Your task to perform on an android device: turn on the 12-hour format for clock Image 0: 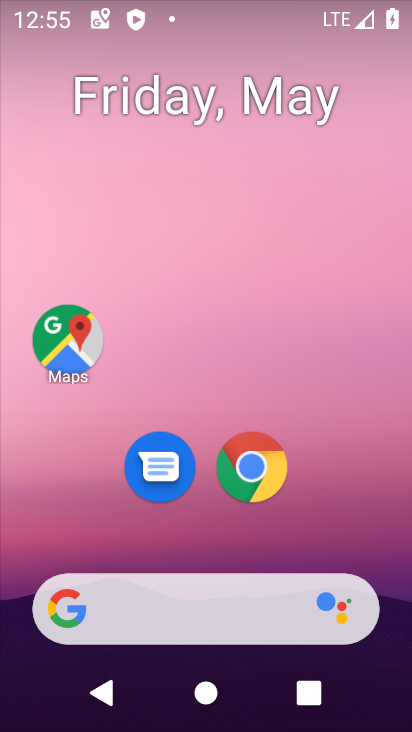
Step 0: drag from (338, 493) to (307, 65)
Your task to perform on an android device: turn on the 12-hour format for clock Image 1: 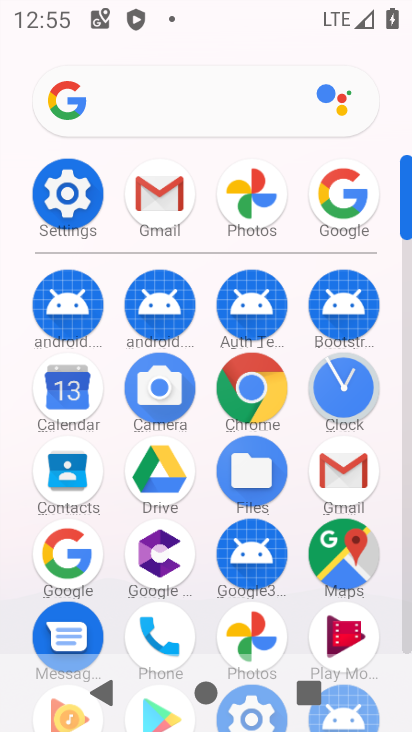
Step 1: drag from (209, 532) to (214, 242)
Your task to perform on an android device: turn on the 12-hour format for clock Image 2: 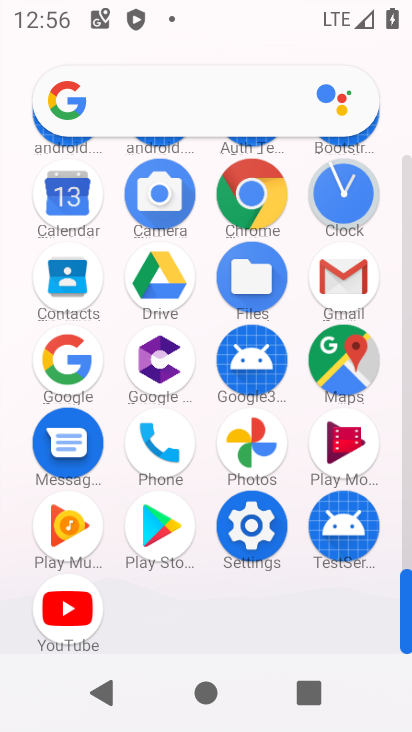
Step 2: click (348, 191)
Your task to perform on an android device: turn on the 12-hour format for clock Image 3: 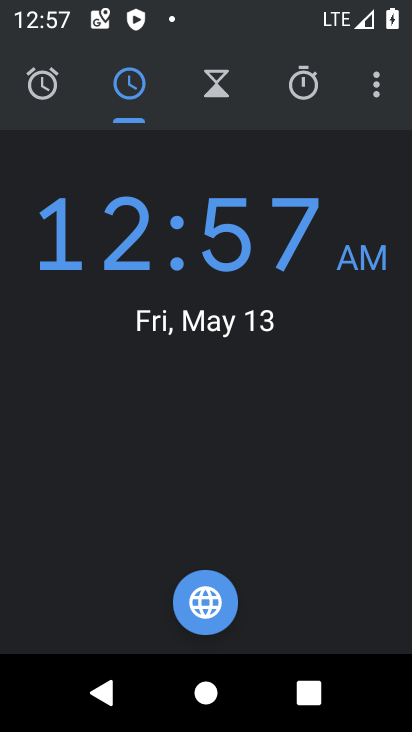
Step 3: click (376, 83)
Your task to perform on an android device: turn on the 12-hour format for clock Image 4: 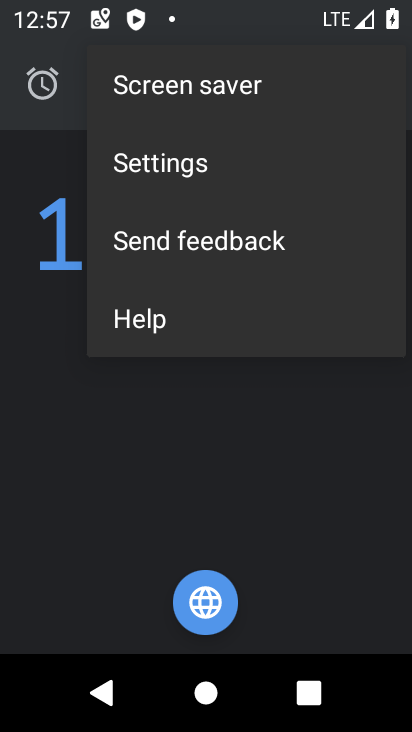
Step 4: click (203, 161)
Your task to perform on an android device: turn on the 12-hour format for clock Image 5: 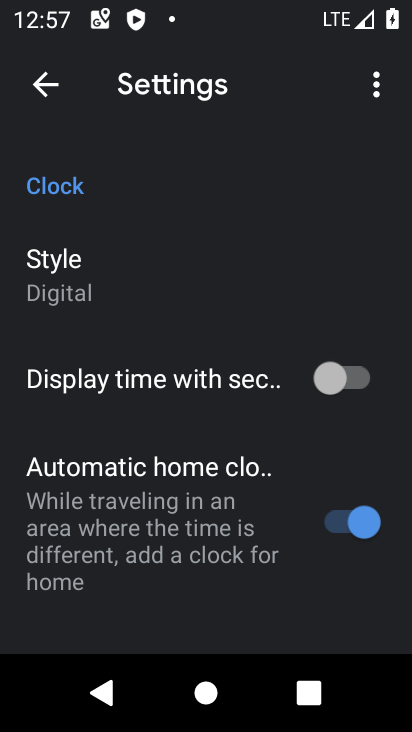
Step 5: drag from (141, 565) to (200, 379)
Your task to perform on an android device: turn on the 12-hour format for clock Image 6: 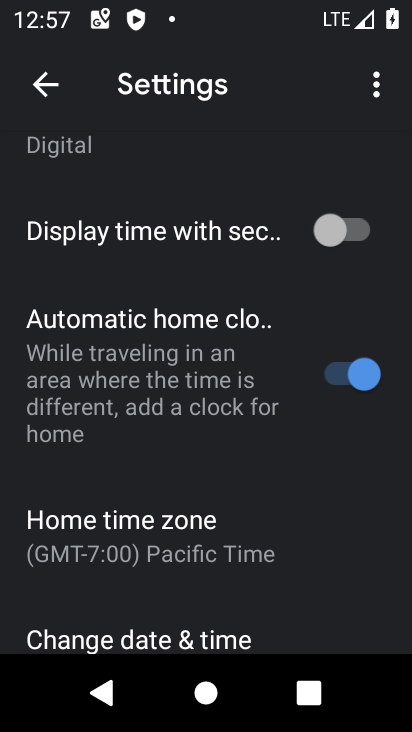
Step 6: drag from (138, 563) to (201, 425)
Your task to perform on an android device: turn on the 12-hour format for clock Image 7: 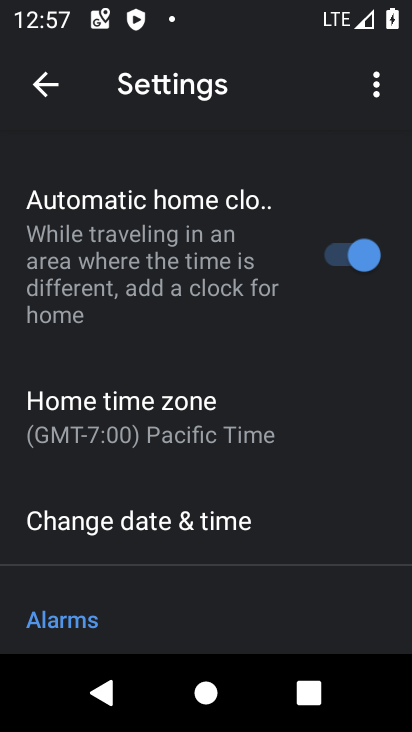
Step 7: click (160, 529)
Your task to perform on an android device: turn on the 12-hour format for clock Image 8: 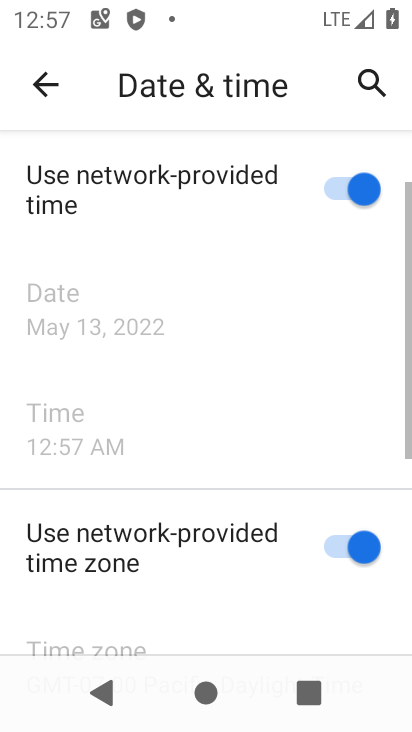
Step 8: task complete